Your task to perform on an android device: see sites visited before in the chrome app Image 0: 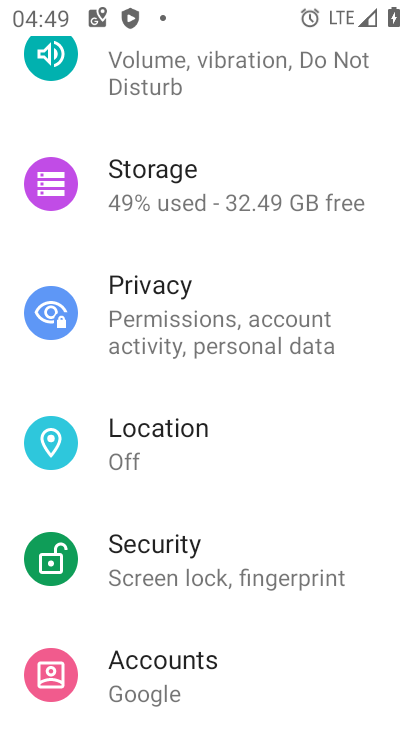
Step 0: press home button
Your task to perform on an android device: see sites visited before in the chrome app Image 1: 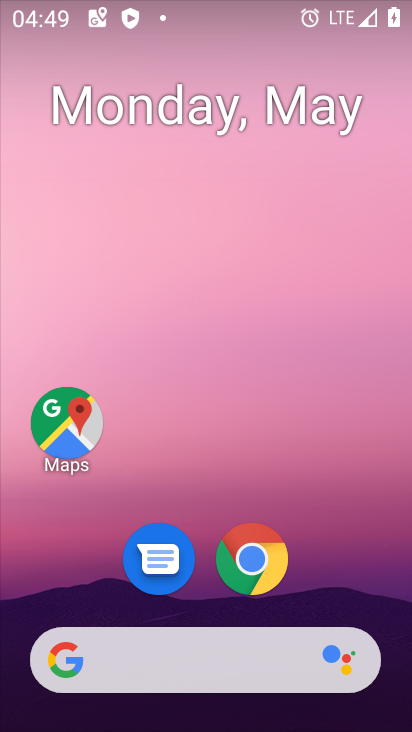
Step 1: drag from (288, 615) to (411, 358)
Your task to perform on an android device: see sites visited before in the chrome app Image 2: 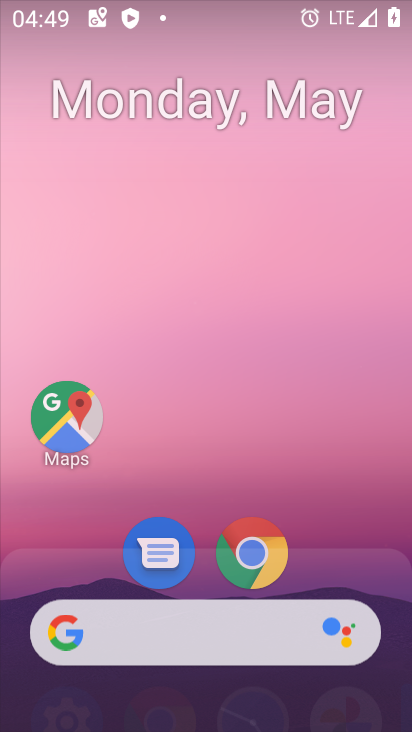
Step 2: click (259, 388)
Your task to perform on an android device: see sites visited before in the chrome app Image 3: 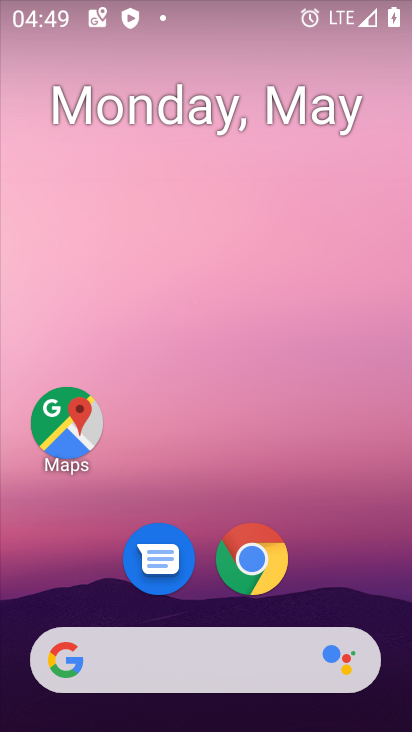
Step 3: click (270, 556)
Your task to perform on an android device: see sites visited before in the chrome app Image 4: 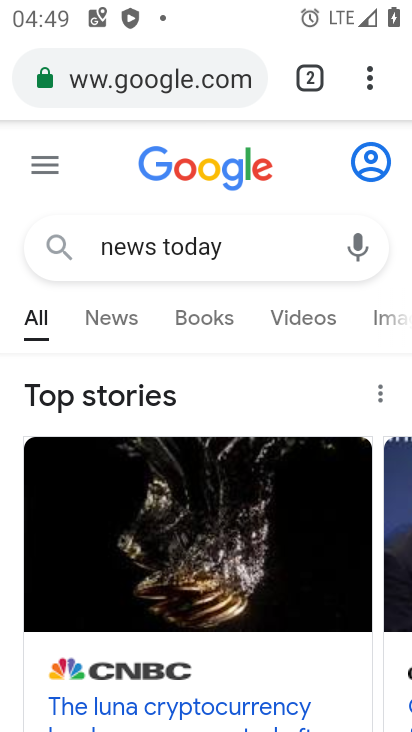
Step 4: task complete